Your task to perform on an android device: Open Reddit.com Image 0: 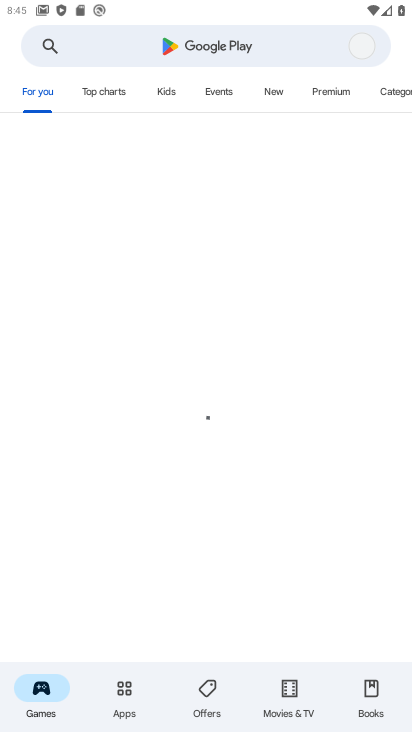
Step 0: press home button
Your task to perform on an android device: Open Reddit.com Image 1: 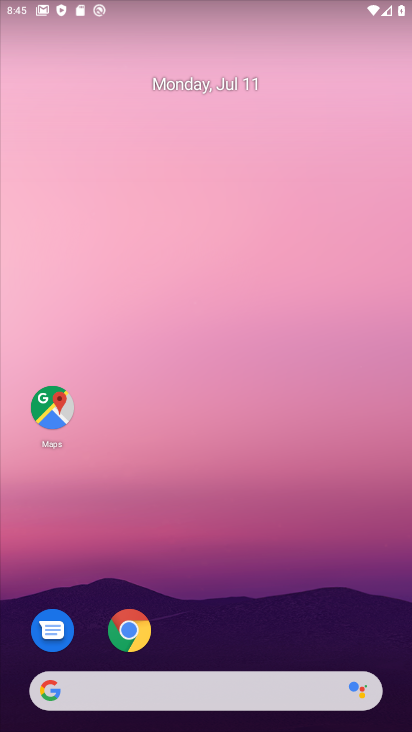
Step 1: drag from (180, 644) to (256, 170)
Your task to perform on an android device: Open Reddit.com Image 2: 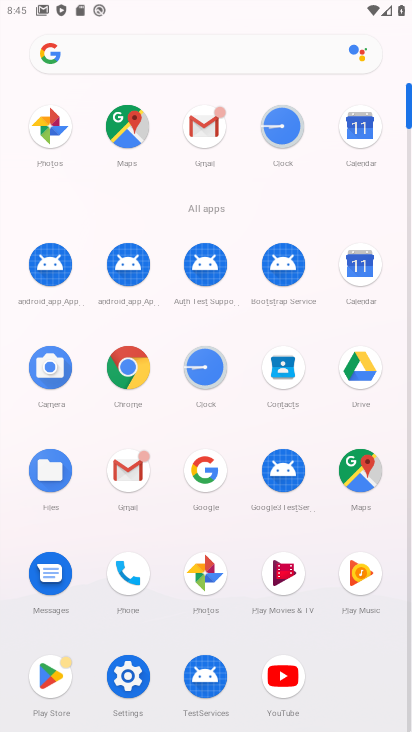
Step 2: click (201, 481)
Your task to perform on an android device: Open Reddit.com Image 3: 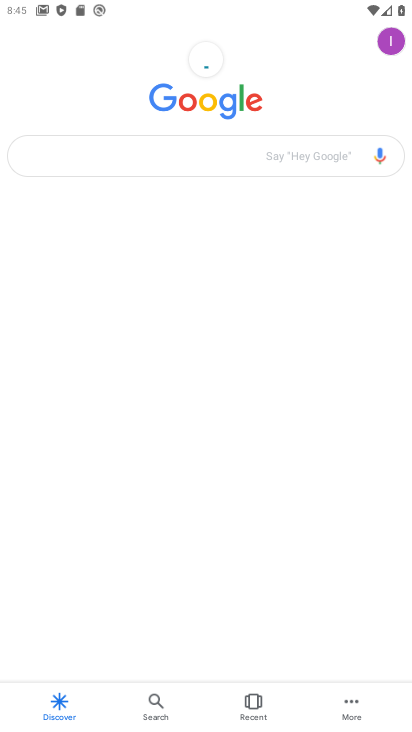
Step 3: click (215, 153)
Your task to perform on an android device: Open Reddit.com Image 4: 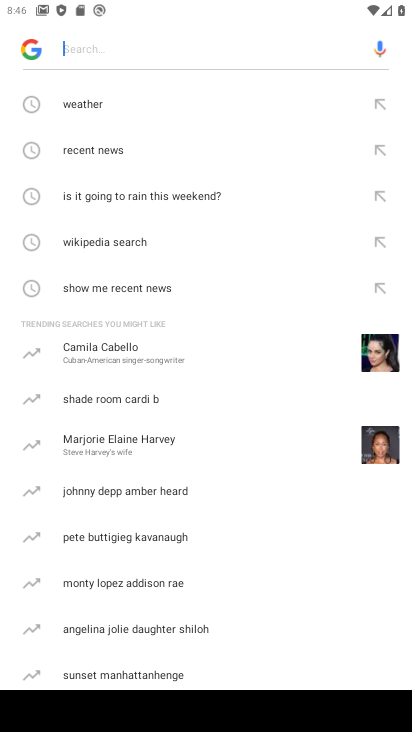
Step 4: type "Reddit.com"
Your task to perform on an android device: Open Reddit.com Image 5: 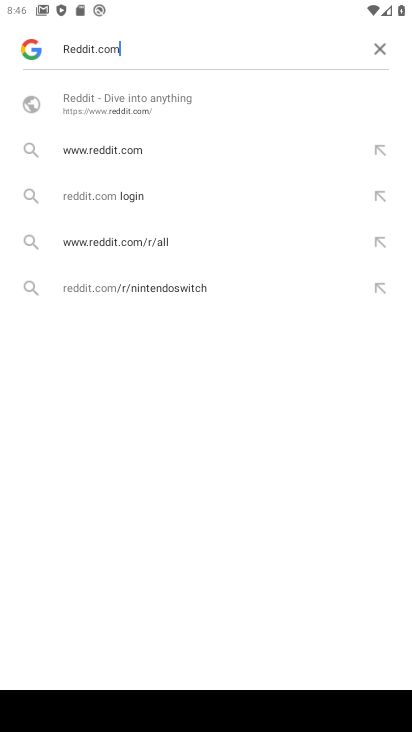
Step 5: click (185, 109)
Your task to perform on an android device: Open Reddit.com Image 6: 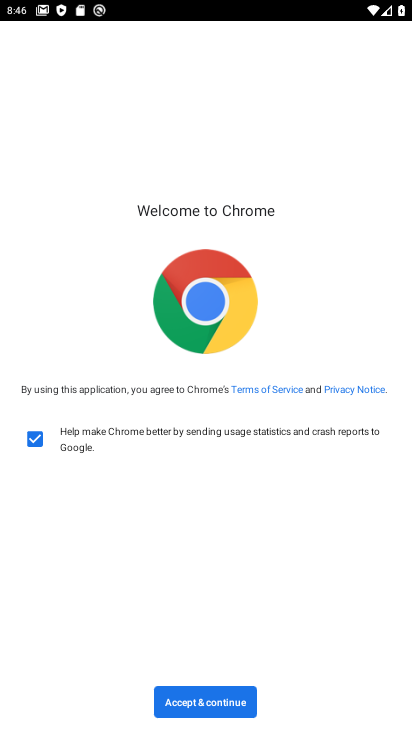
Step 6: click (187, 695)
Your task to perform on an android device: Open Reddit.com Image 7: 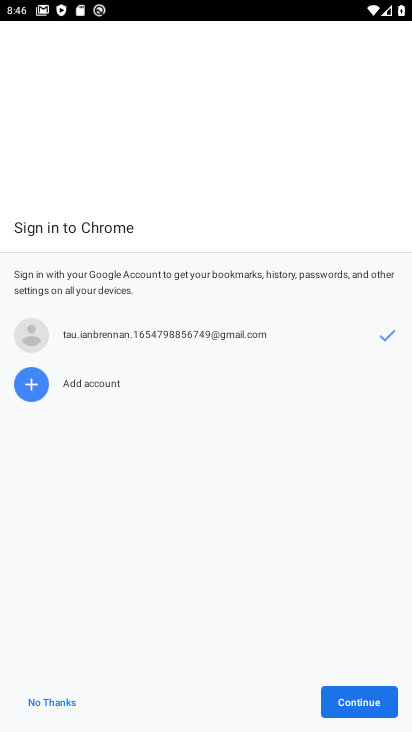
Step 7: click (340, 705)
Your task to perform on an android device: Open Reddit.com Image 8: 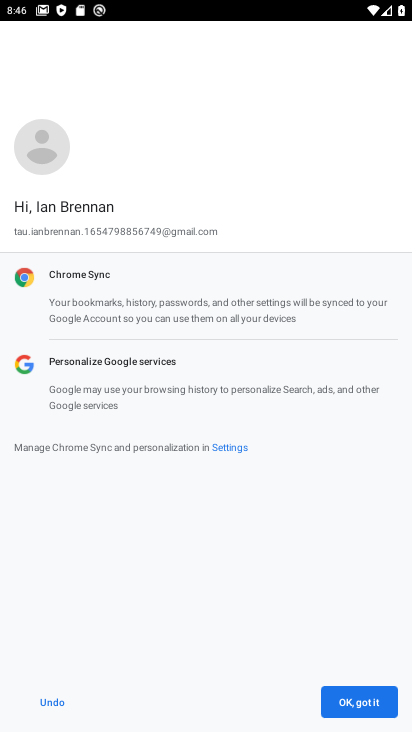
Step 8: click (348, 702)
Your task to perform on an android device: Open Reddit.com Image 9: 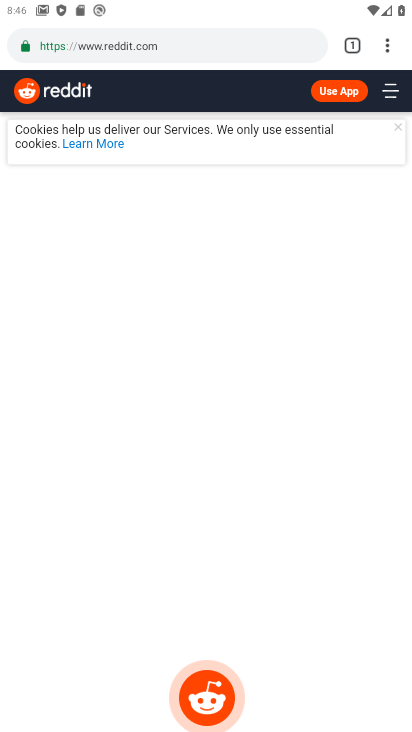
Step 9: task complete